Your task to perform on an android device: find which apps use the phone's location Image 0: 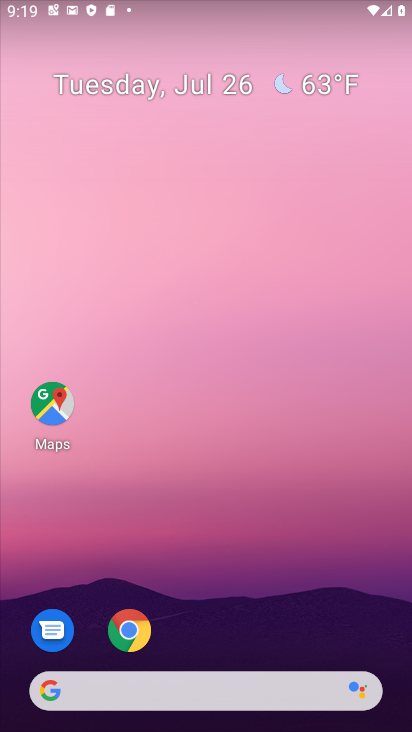
Step 0: press home button
Your task to perform on an android device: find which apps use the phone's location Image 1: 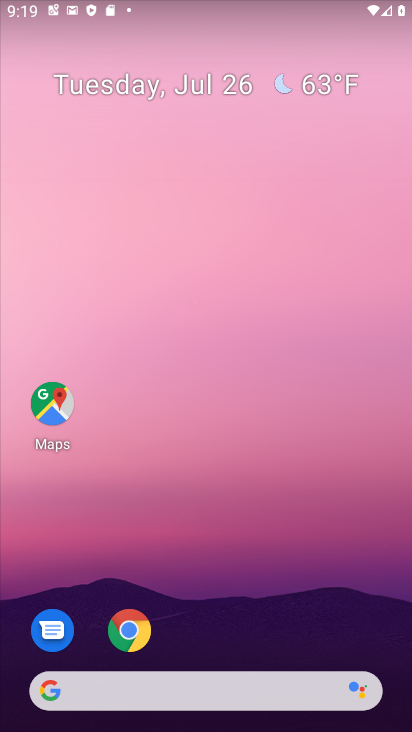
Step 1: drag from (219, 651) to (238, 59)
Your task to perform on an android device: find which apps use the phone's location Image 2: 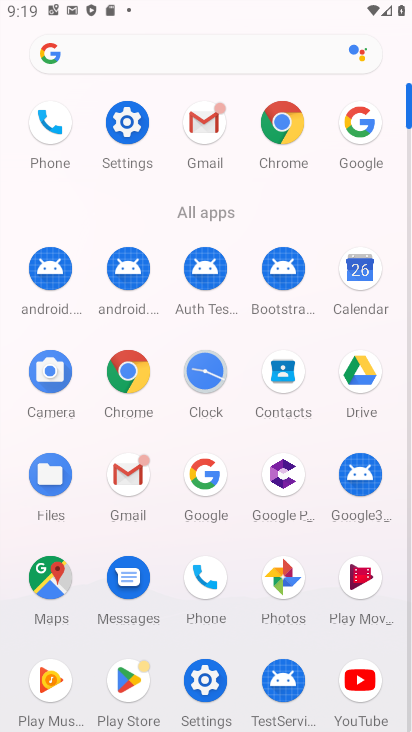
Step 2: click (206, 674)
Your task to perform on an android device: find which apps use the phone's location Image 3: 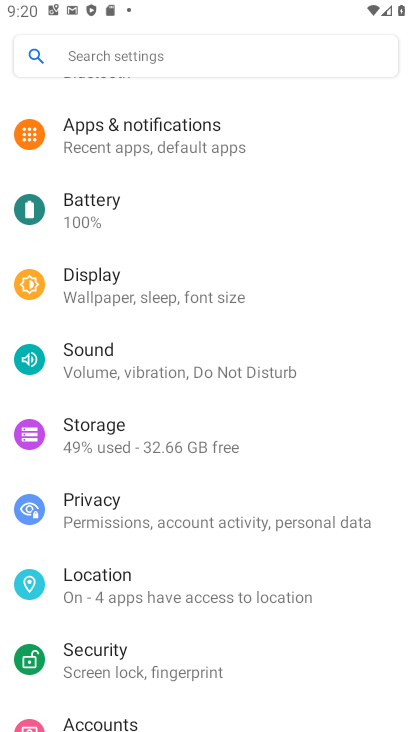
Step 3: click (139, 576)
Your task to perform on an android device: find which apps use the phone's location Image 4: 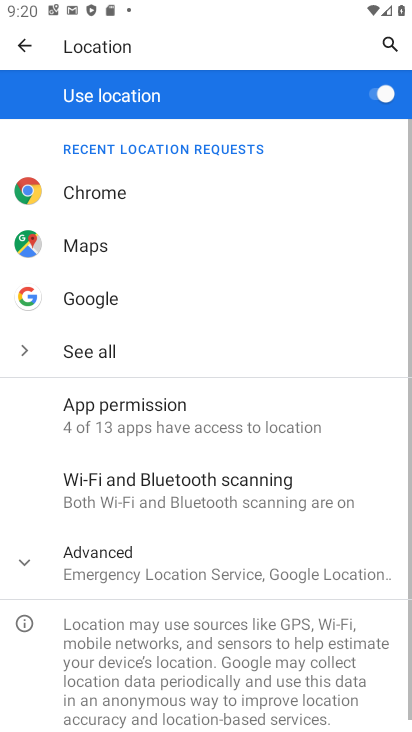
Step 4: click (36, 410)
Your task to perform on an android device: find which apps use the phone's location Image 5: 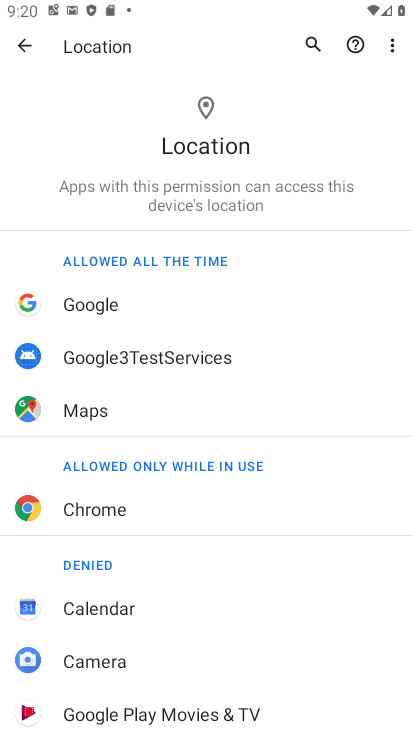
Step 5: task complete